Your task to perform on an android device: Open Android settings Image 0: 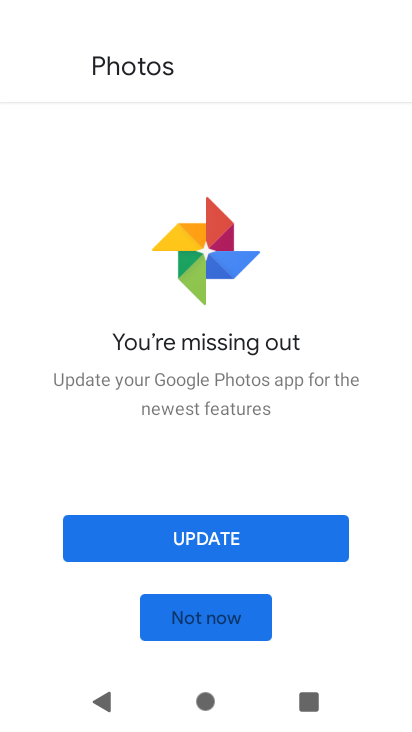
Step 0: click (245, 617)
Your task to perform on an android device: Open Android settings Image 1: 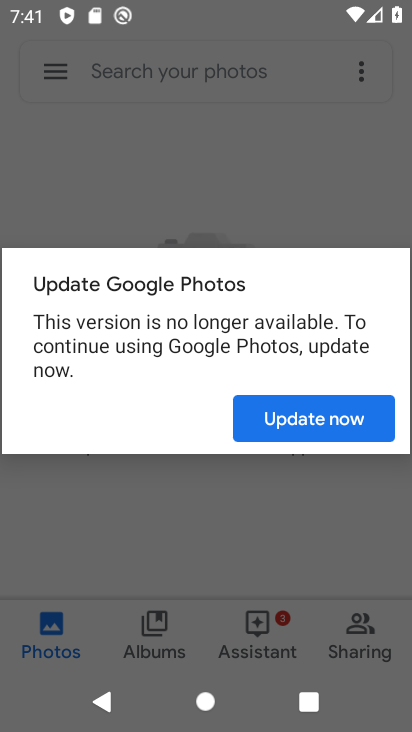
Step 1: click (331, 421)
Your task to perform on an android device: Open Android settings Image 2: 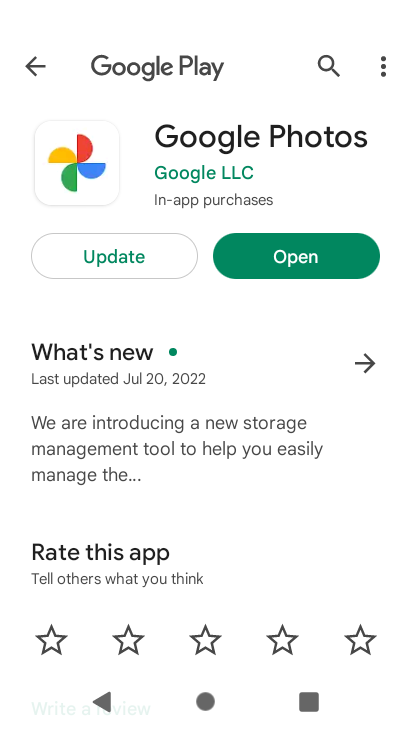
Step 2: press home button
Your task to perform on an android device: Open Android settings Image 3: 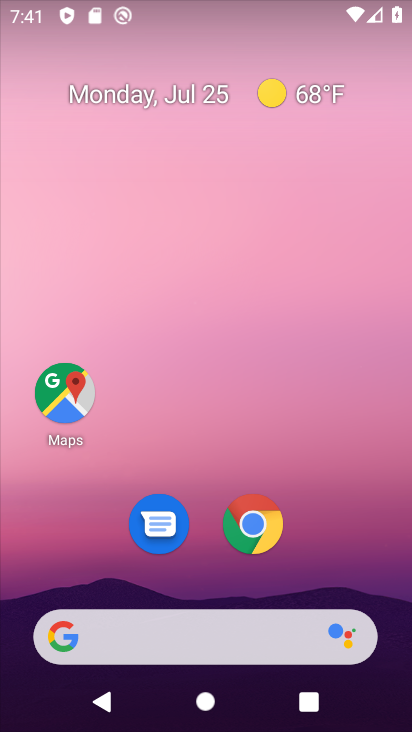
Step 3: drag from (318, 535) to (327, 4)
Your task to perform on an android device: Open Android settings Image 4: 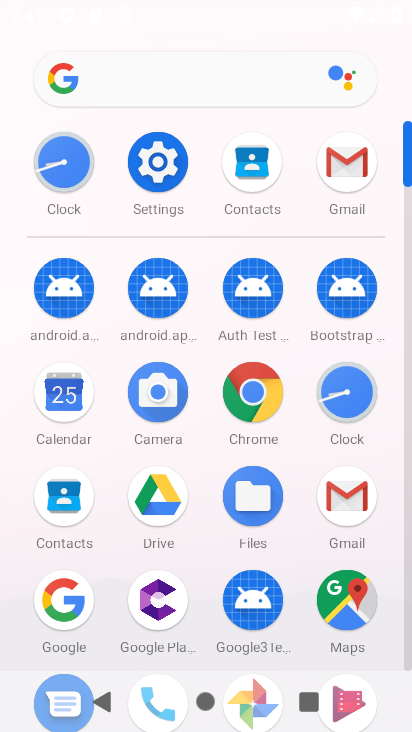
Step 4: click (172, 159)
Your task to perform on an android device: Open Android settings Image 5: 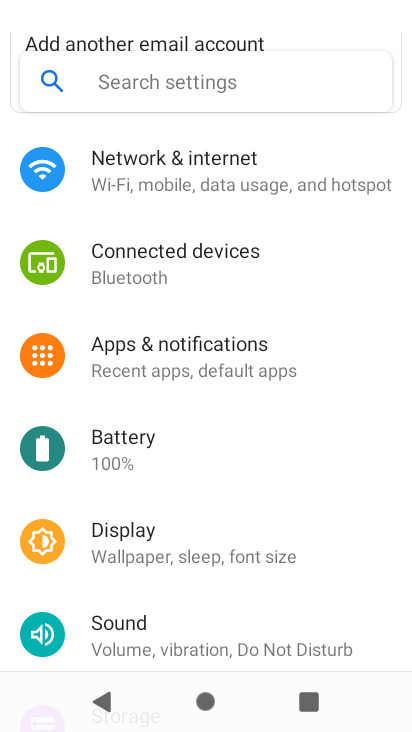
Step 5: drag from (223, 509) to (249, 52)
Your task to perform on an android device: Open Android settings Image 6: 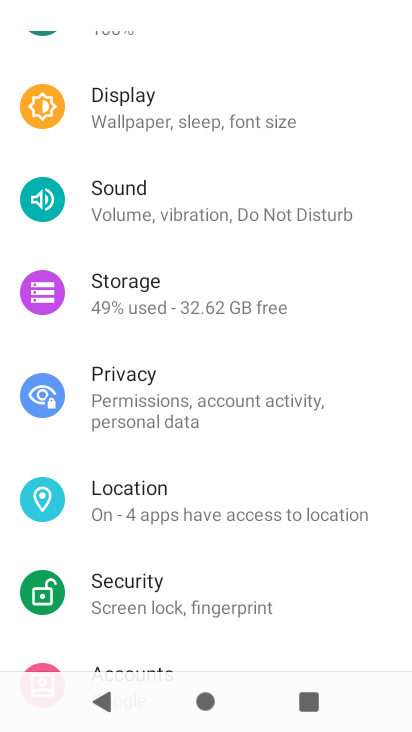
Step 6: drag from (215, 541) to (230, 72)
Your task to perform on an android device: Open Android settings Image 7: 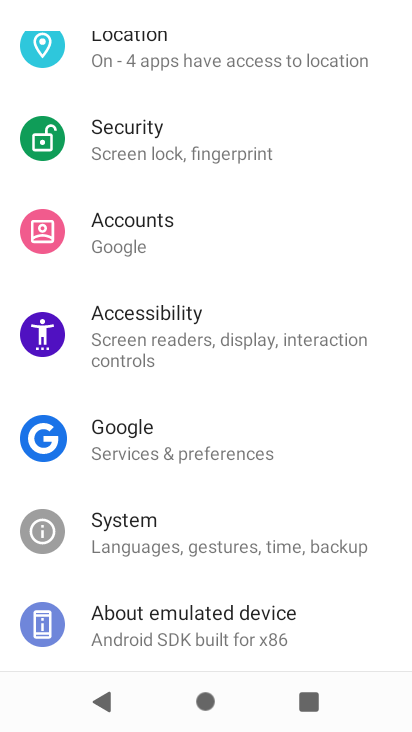
Step 7: click (189, 622)
Your task to perform on an android device: Open Android settings Image 8: 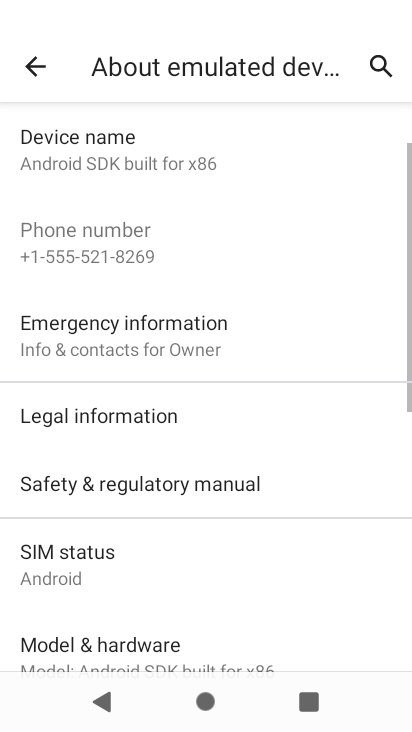
Step 8: task complete